Your task to perform on an android device: Show me productivity apps on the Play Store Image 0: 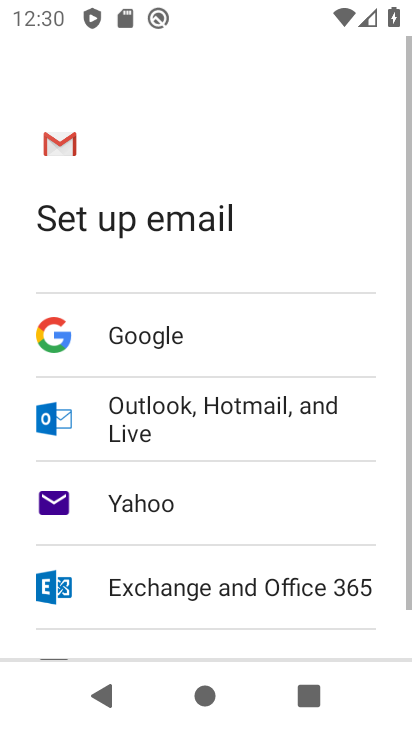
Step 0: press back button
Your task to perform on an android device: Show me productivity apps on the Play Store Image 1: 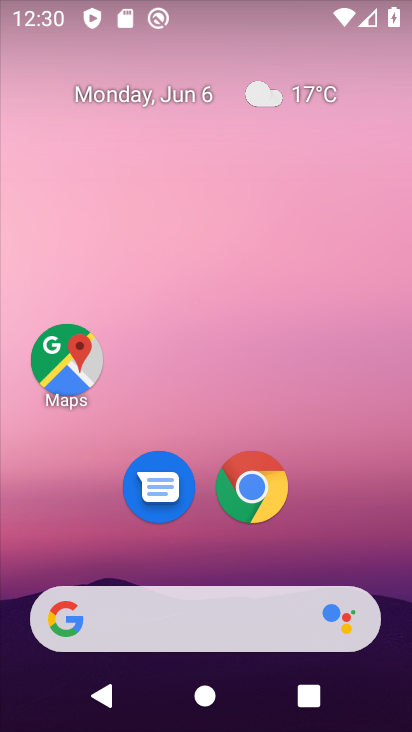
Step 1: drag from (183, 583) to (260, 83)
Your task to perform on an android device: Show me productivity apps on the Play Store Image 2: 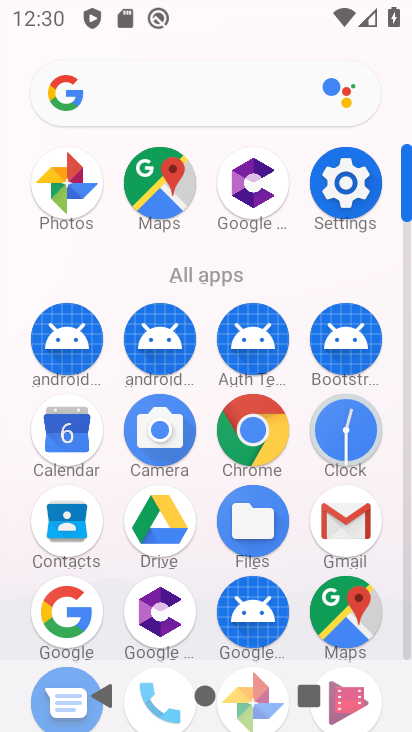
Step 2: drag from (173, 554) to (181, 86)
Your task to perform on an android device: Show me productivity apps on the Play Store Image 3: 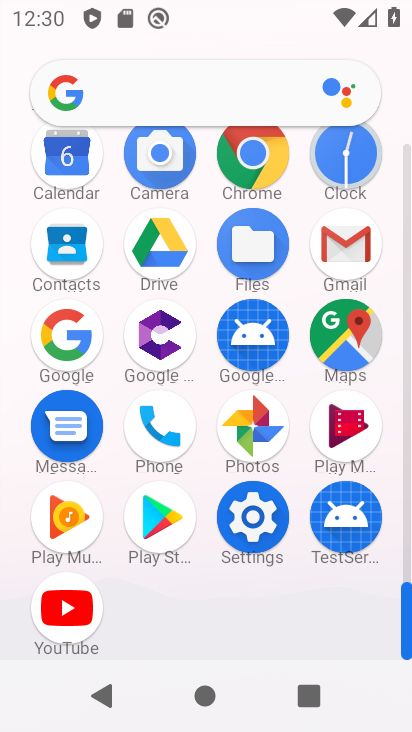
Step 3: click (163, 517)
Your task to perform on an android device: Show me productivity apps on the Play Store Image 4: 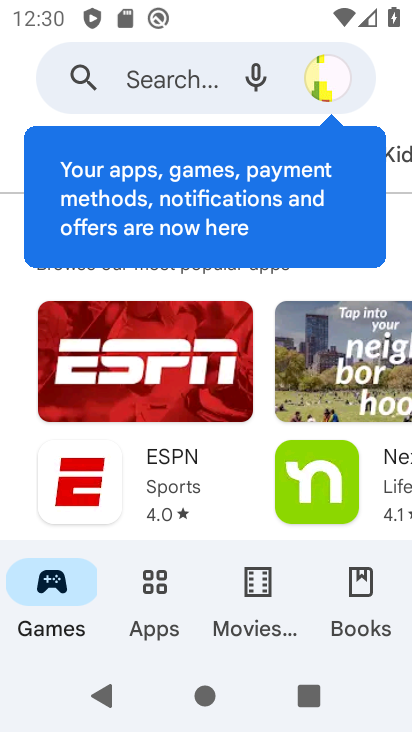
Step 4: click (157, 597)
Your task to perform on an android device: Show me productivity apps on the Play Store Image 5: 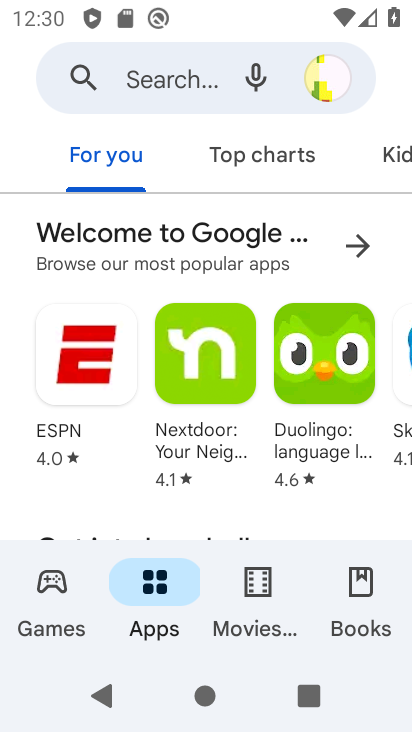
Step 5: task complete